Your task to perform on an android device: visit the assistant section in the google photos Image 0: 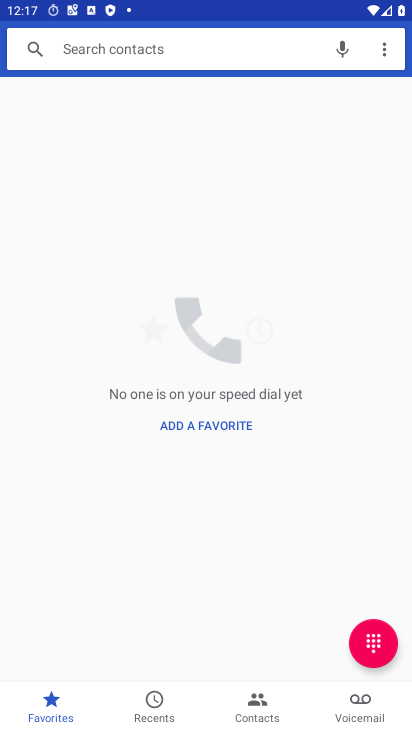
Step 0: press home button
Your task to perform on an android device: visit the assistant section in the google photos Image 1: 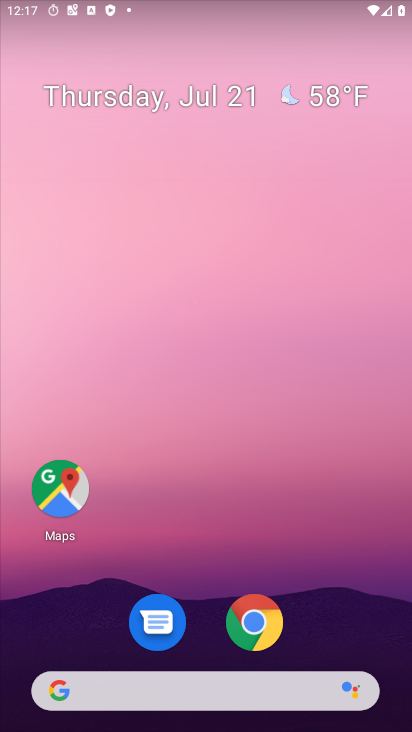
Step 1: drag from (26, 619) to (234, 94)
Your task to perform on an android device: visit the assistant section in the google photos Image 2: 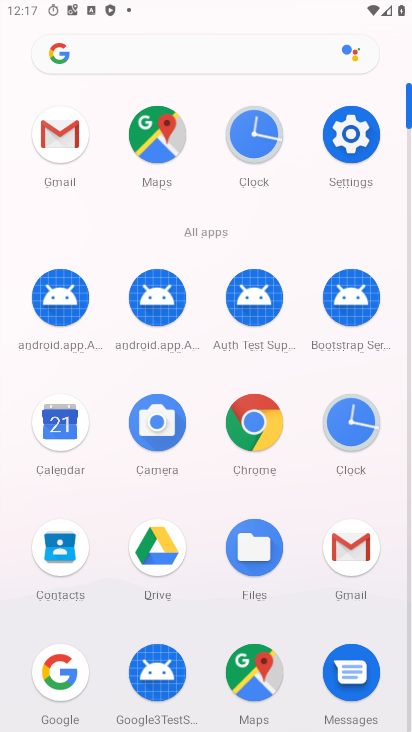
Step 2: drag from (235, 603) to (254, 161)
Your task to perform on an android device: visit the assistant section in the google photos Image 3: 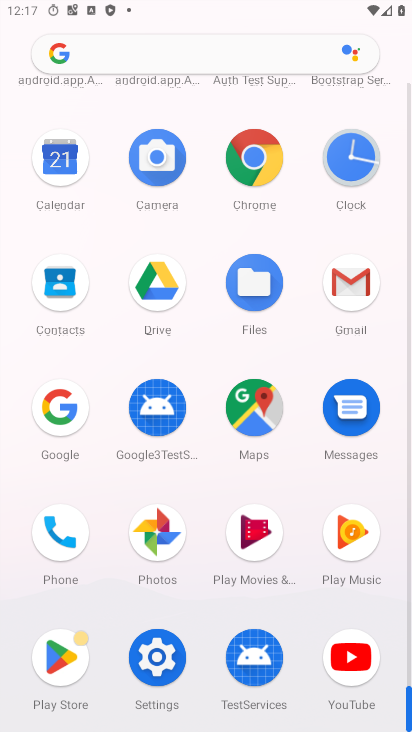
Step 3: click (164, 545)
Your task to perform on an android device: visit the assistant section in the google photos Image 4: 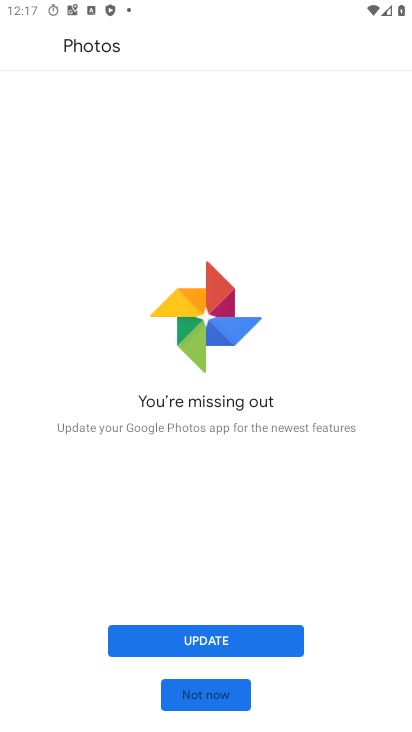
Step 4: click (209, 638)
Your task to perform on an android device: visit the assistant section in the google photos Image 5: 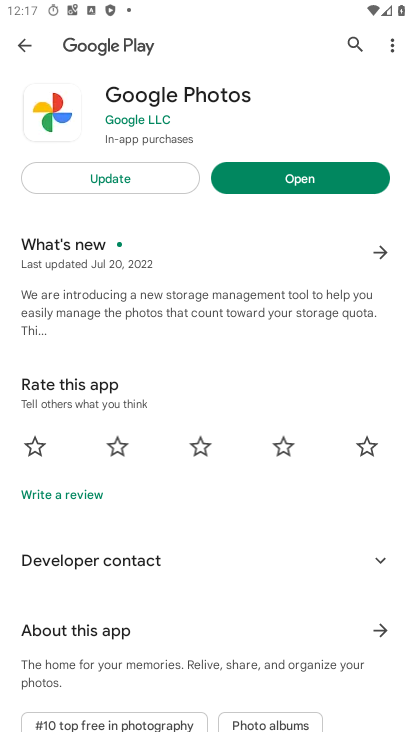
Step 5: click (303, 181)
Your task to perform on an android device: visit the assistant section in the google photos Image 6: 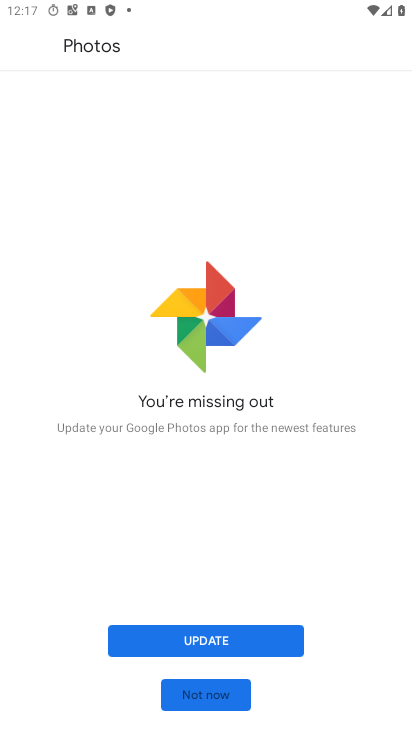
Step 6: task complete